Your task to perform on an android device: change keyboard looks Image 0: 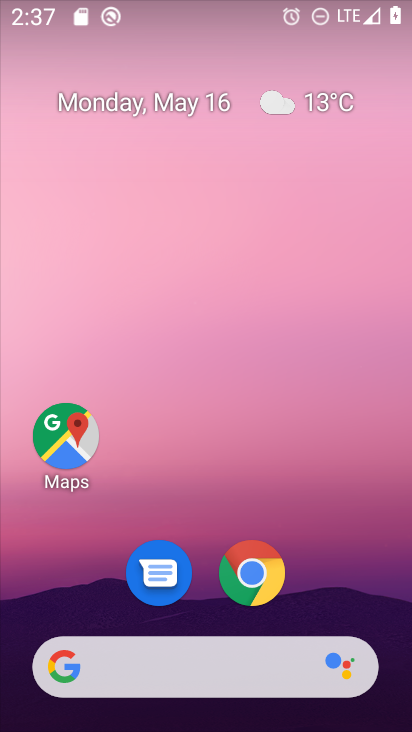
Step 0: drag from (173, 680) to (202, 60)
Your task to perform on an android device: change keyboard looks Image 1: 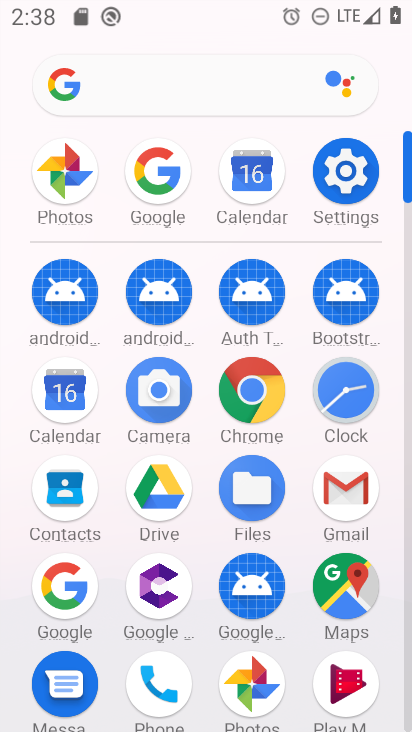
Step 1: click (352, 164)
Your task to perform on an android device: change keyboard looks Image 2: 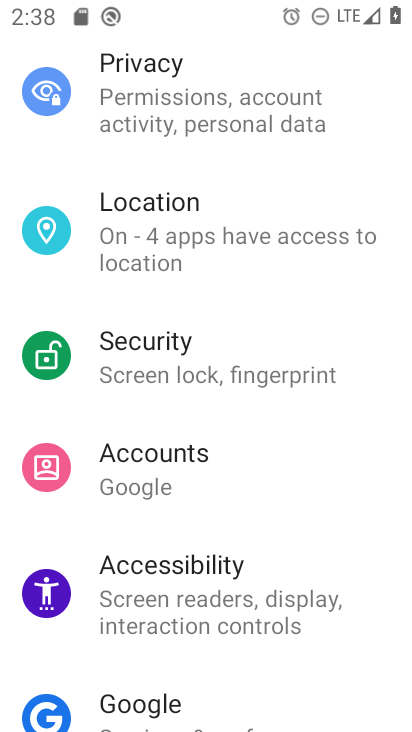
Step 2: drag from (158, 594) to (156, 127)
Your task to perform on an android device: change keyboard looks Image 3: 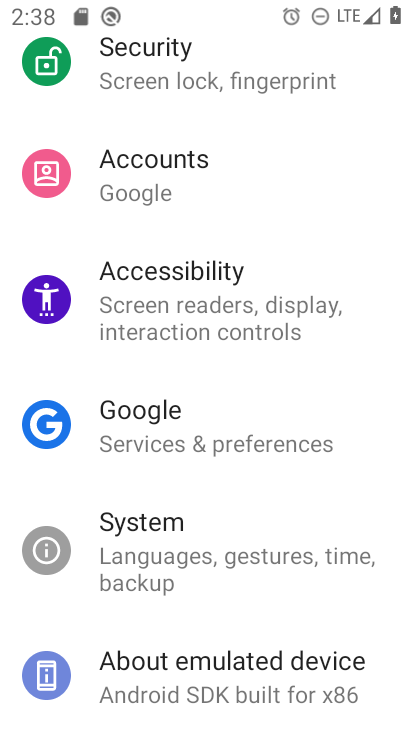
Step 3: click (119, 538)
Your task to perform on an android device: change keyboard looks Image 4: 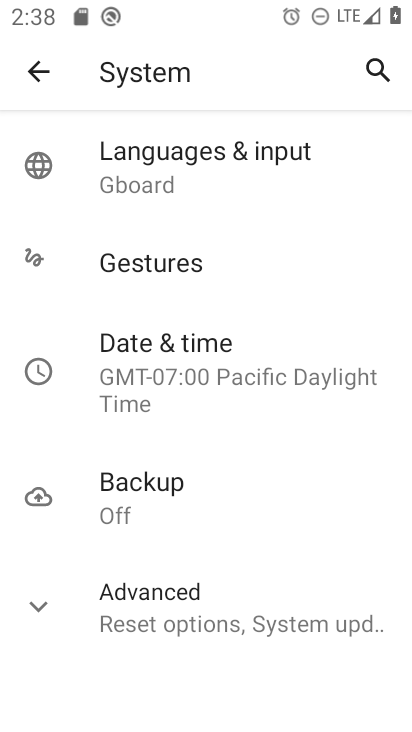
Step 4: click (159, 170)
Your task to perform on an android device: change keyboard looks Image 5: 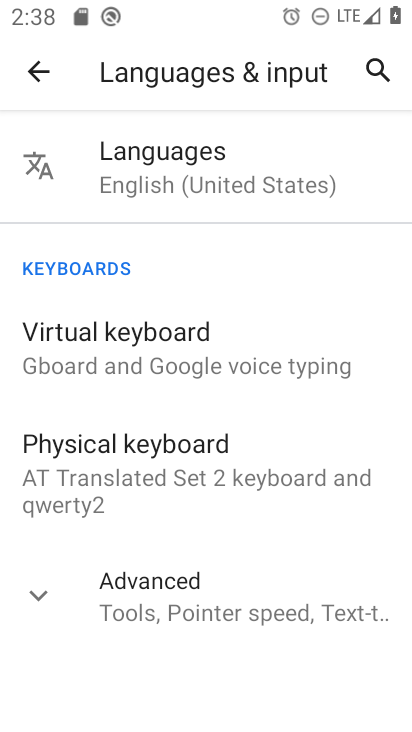
Step 5: click (111, 337)
Your task to perform on an android device: change keyboard looks Image 6: 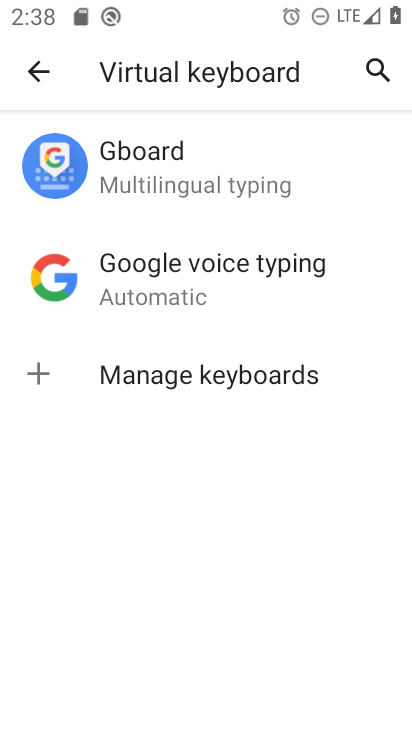
Step 6: click (122, 160)
Your task to perform on an android device: change keyboard looks Image 7: 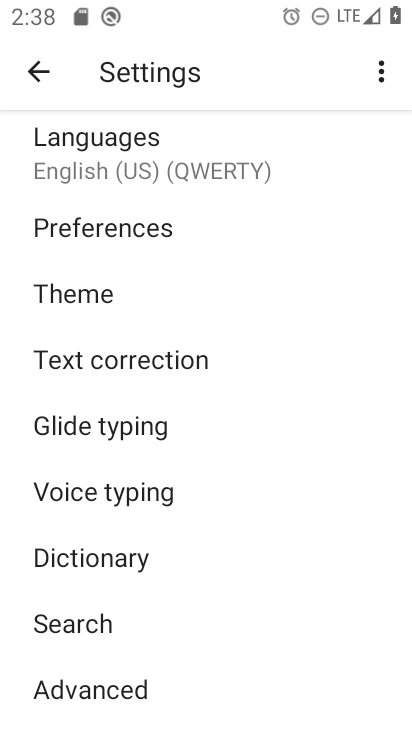
Step 7: click (99, 293)
Your task to perform on an android device: change keyboard looks Image 8: 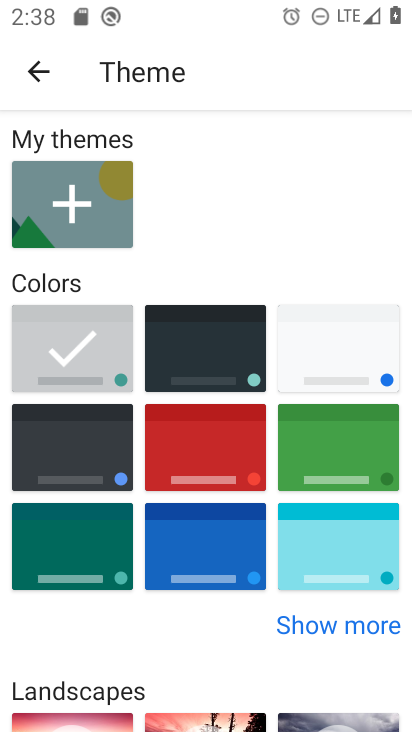
Step 8: click (167, 474)
Your task to perform on an android device: change keyboard looks Image 9: 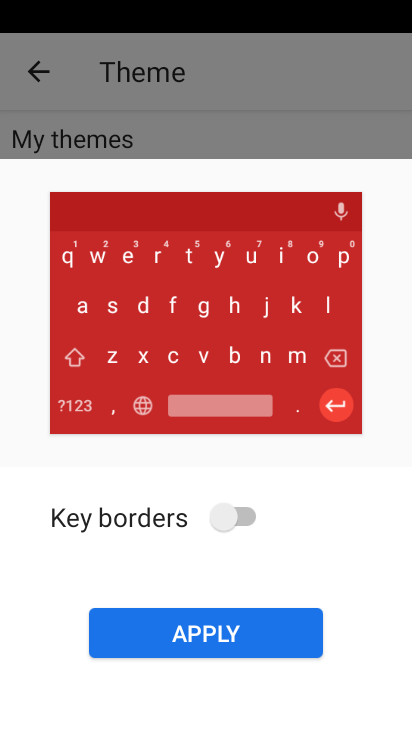
Step 9: click (190, 633)
Your task to perform on an android device: change keyboard looks Image 10: 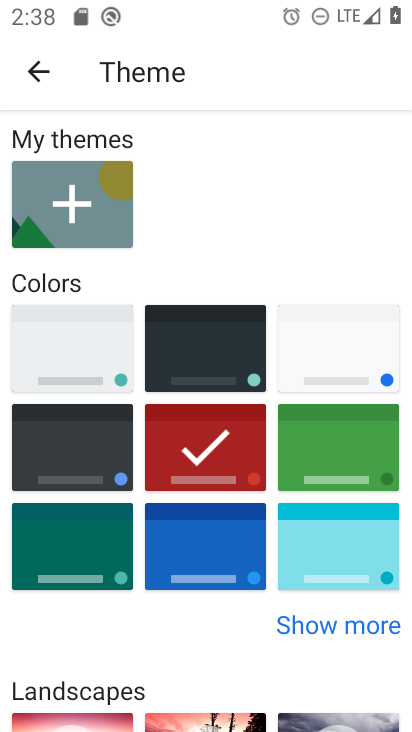
Step 10: task complete